Your task to perform on an android device: Open network settings Image 0: 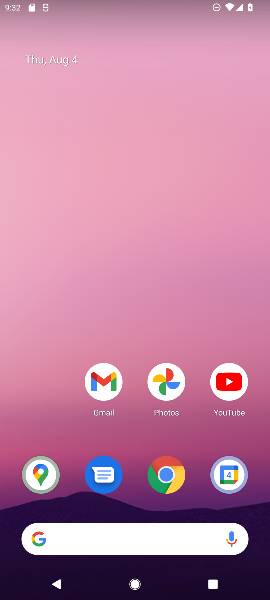
Step 0: drag from (144, 459) to (170, 239)
Your task to perform on an android device: Open network settings Image 1: 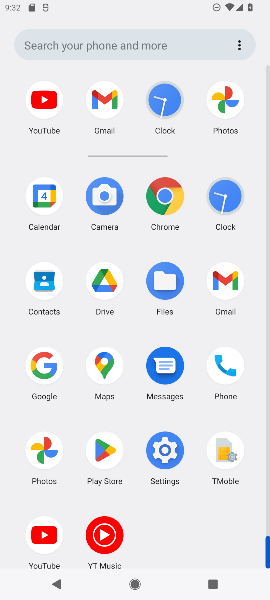
Step 1: click (167, 444)
Your task to perform on an android device: Open network settings Image 2: 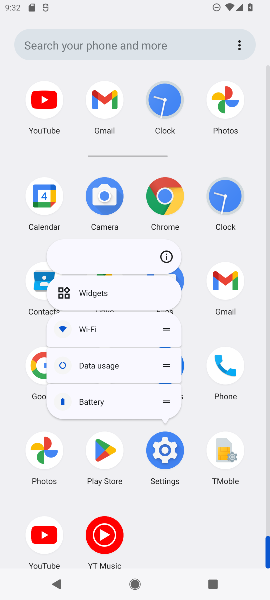
Step 2: click (166, 254)
Your task to perform on an android device: Open network settings Image 3: 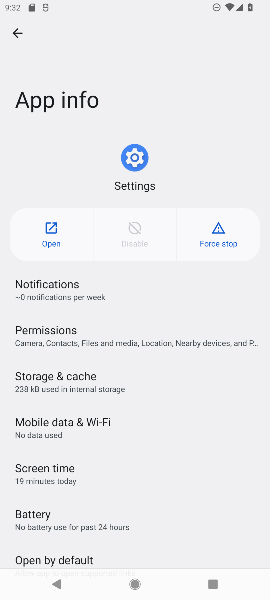
Step 3: click (44, 229)
Your task to perform on an android device: Open network settings Image 4: 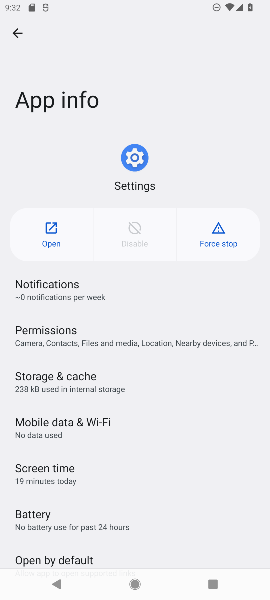
Step 4: click (44, 229)
Your task to perform on an android device: Open network settings Image 5: 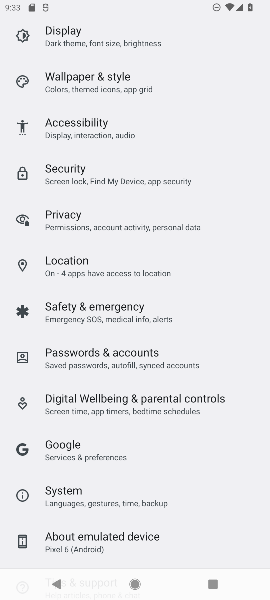
Step 5: drag from (150, 166) to (148, 594)
Your task to perform on an android device: Open network settings Image 6: 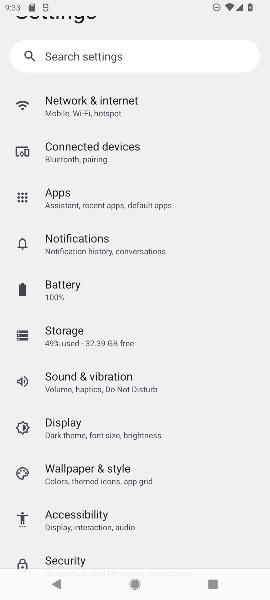
Step 6: click (112, 101)
Your task to perform on an android device: Open network settings Image 7: 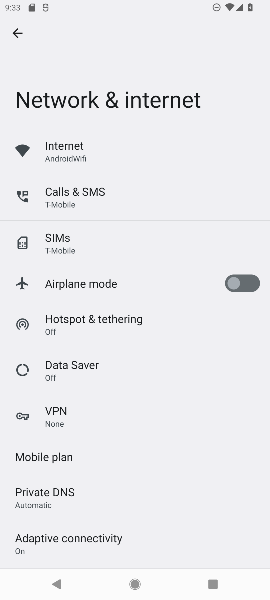
Step 7: task complete